Your task to perform on an android device: Look up the best rated Nike shoes on Nike.com Image 0: 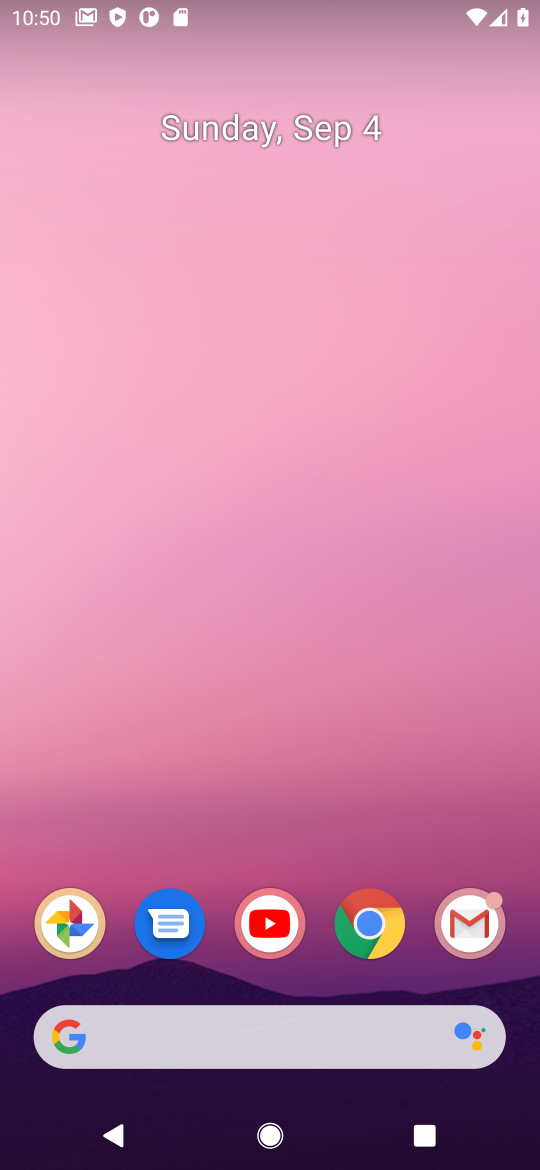
Step 0: click (383, 919)
Your task to perform on an android device: Look up the best rated Nike shoes on Nike.com Image 1: 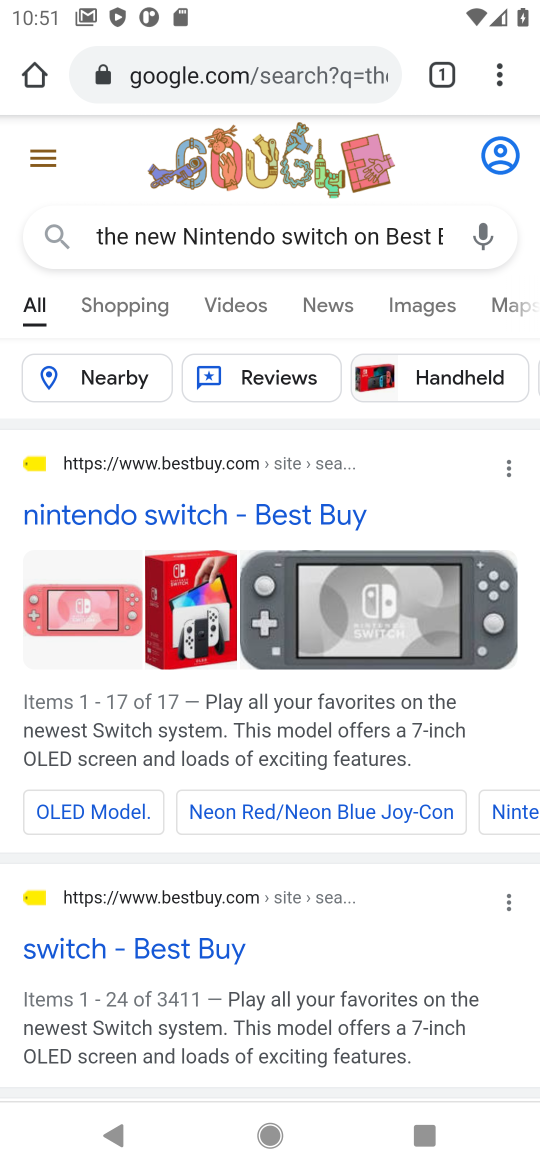
Step 1: drag from (115, 900) to (143, 305)
Your task to perform on an android device: Look up the best rated Nike shoes on Nike.com Image 2: 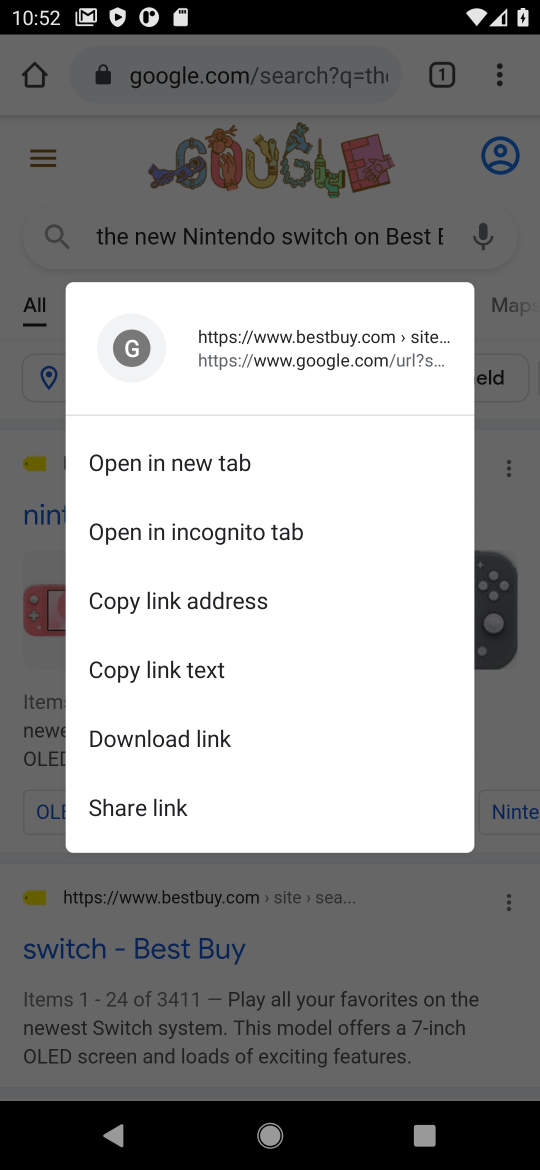
Step 2: click (537, 397)
Your task to perform on an android device: Look up the best rated Nike shoes on Nike.com Image 3: 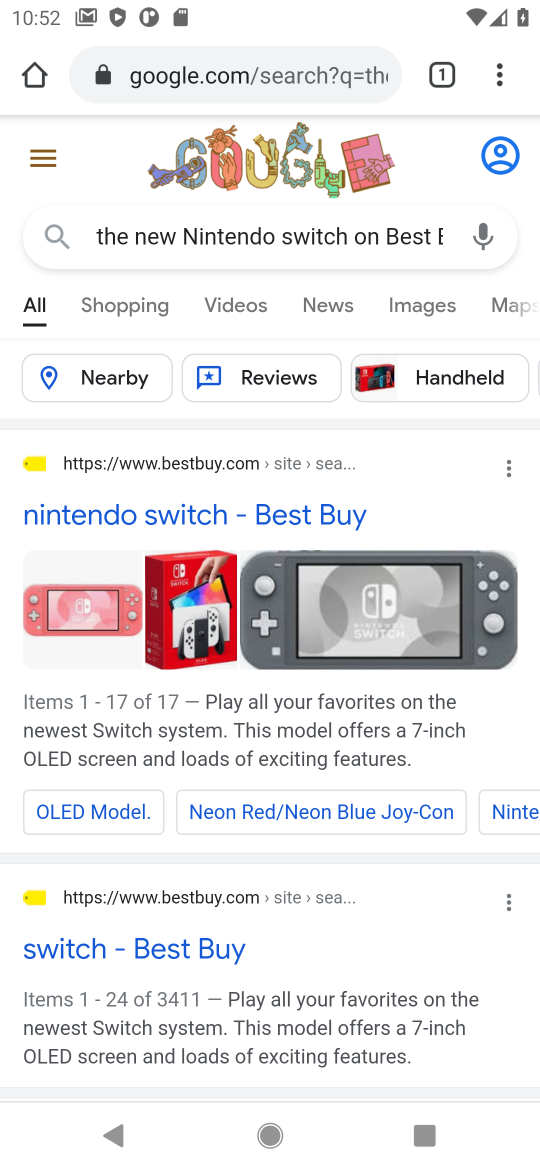
Step 3: task complete